Your task to perform on an android device: See recent photos Image 0: 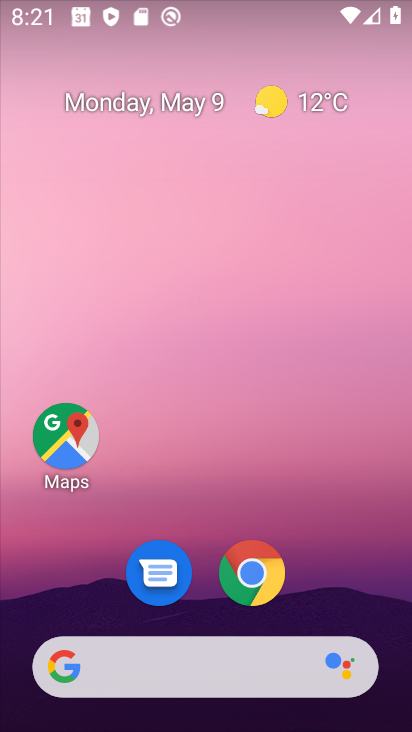
Step 0: drag from (303, 649) to (263, 289)
Your task to perform on an android device: See recent photos Image 1: 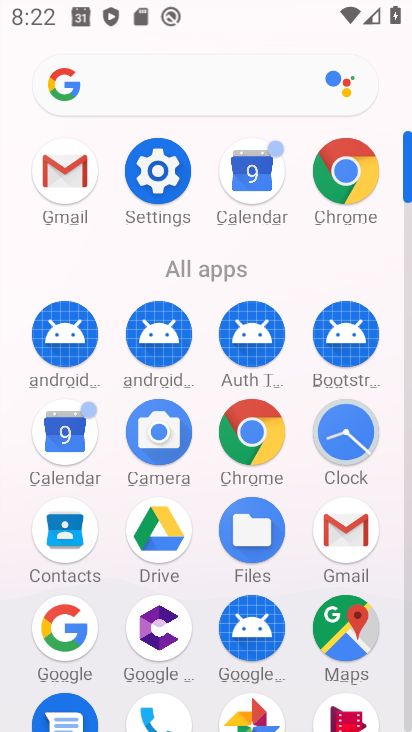
Step 1: drag from (235, 575) to (249, 360)
Your task to perform on an android device: See recent photos Image 2: 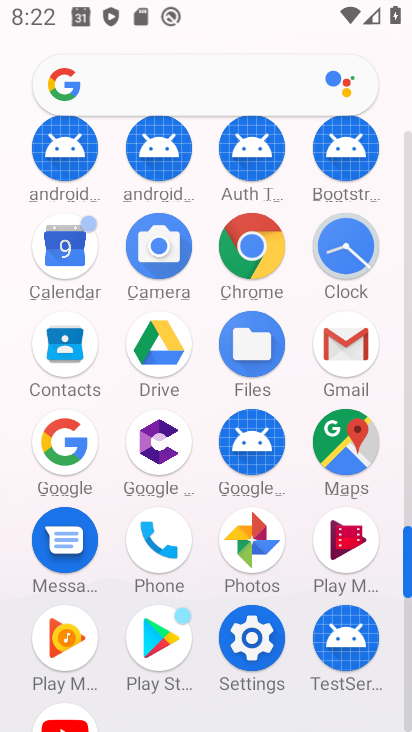
Step 2: click (255, 542)
Your task to perform on an android device: See recent photos Image 3: 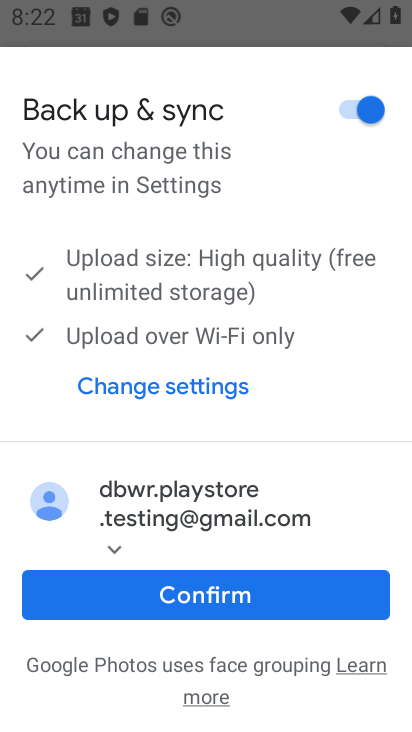
Step 3: click (219, 608)
Your task to perform on an android device: See recent photos Image 4: 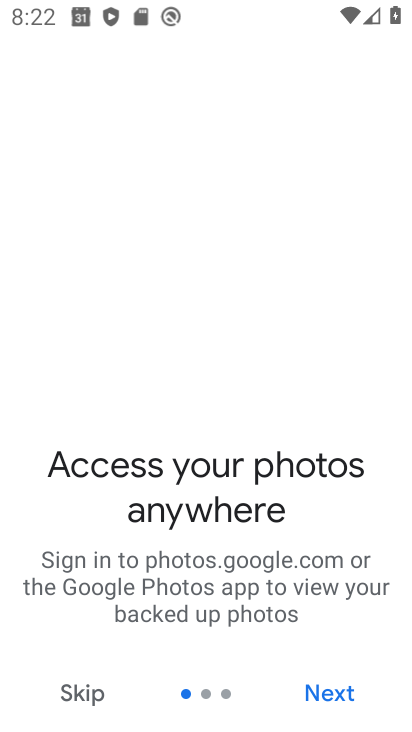
Step 4: click (299, 690)
Your task to perform on an android device: See recent photos Image 5: 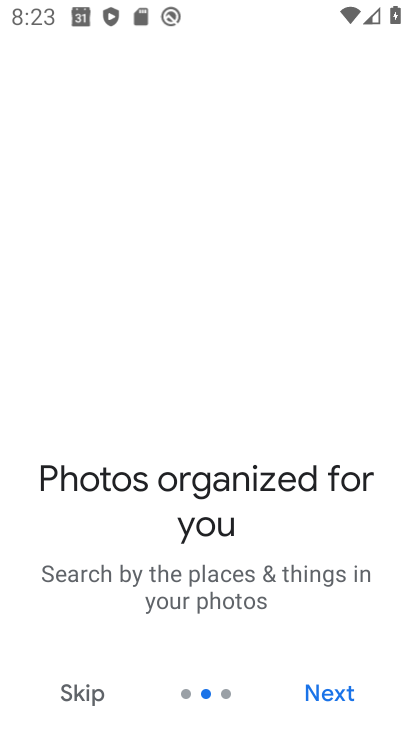
Step 5: click (334, 692)
Your task to perform on an android device: See recent photos Image 6: 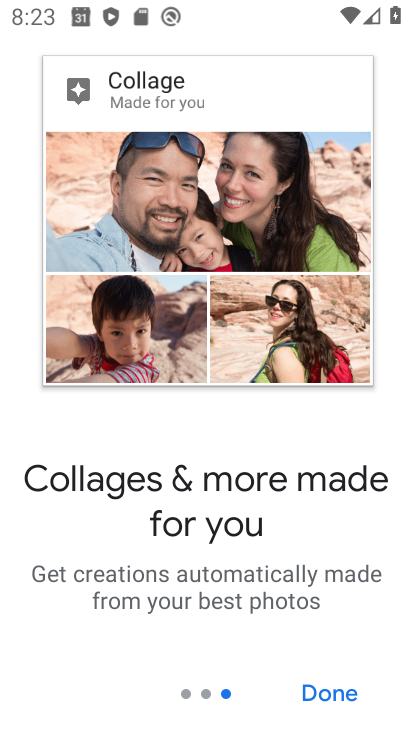
Step 6: click (318, 697)
Your task to perform on an android device: See recent photos Image 7: 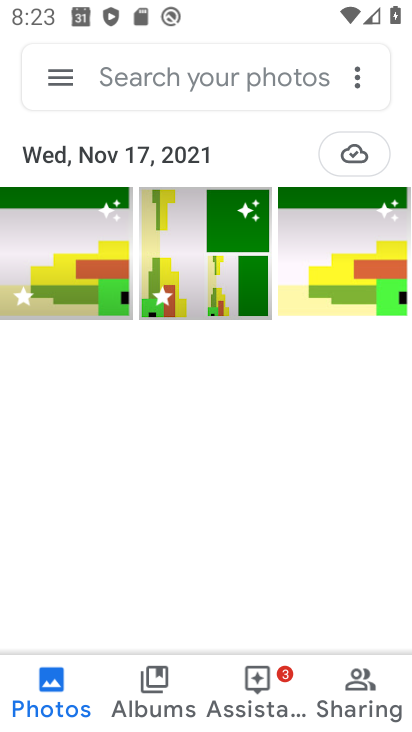
Step 7: task complete